Your task to perform on an android device: Open calendar and show me the first week of next month Image 0: 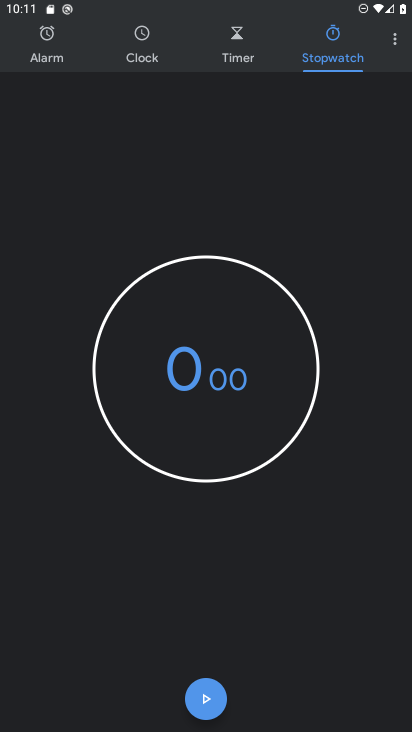
Step 0: press home button
Your task to perform on an android device: Open calendar and show me the first week of next month Image 1: 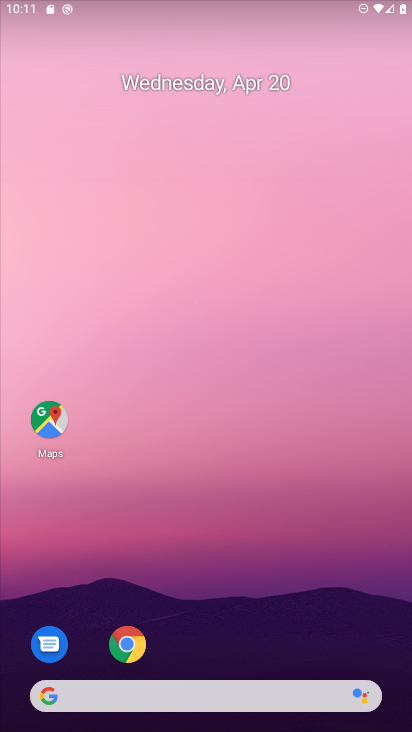
Step 1: drag from (270, 585) to (131, 94)
Your task to perform on an android device: Open calendar and show me the first week of next month Image 2: 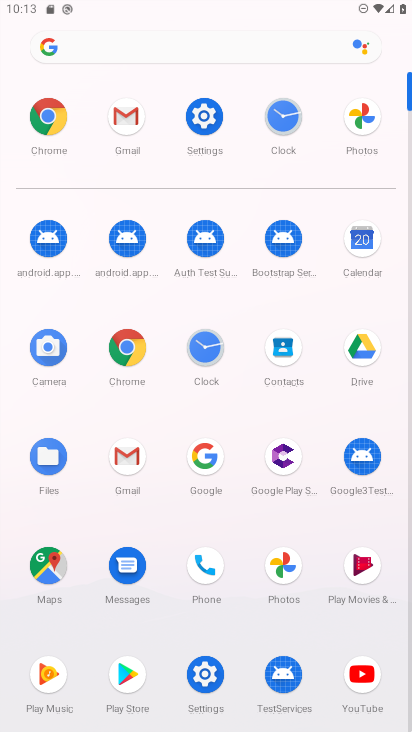
Step 2: click (367, 244)
Your task to perform on an android device: Open calendar and show me the first week of next month Image 3: 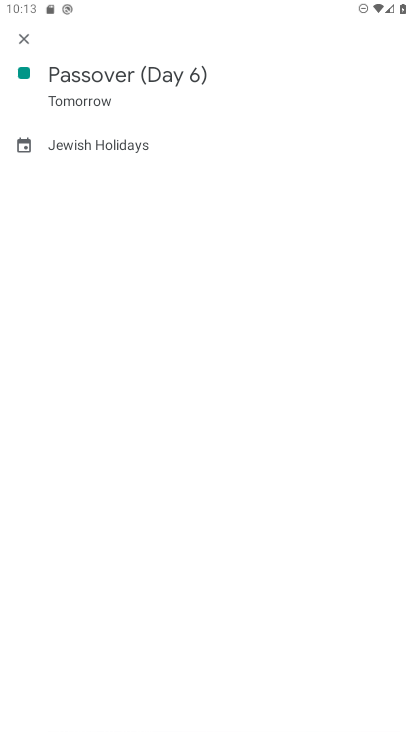
Step 3: click (27, 40)
Your task to perform on an android device: Open calendar and show me the first week of next month Image 4: 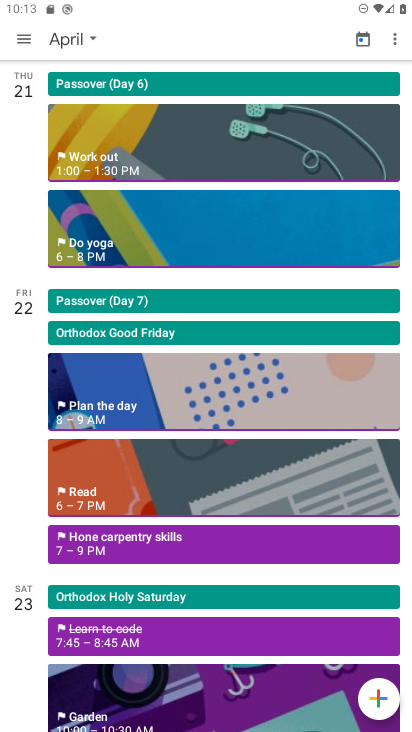
Step 4: click (54, 50)
Your task to perform on an android device: Open calendar and show me the first week of next month Image 5: 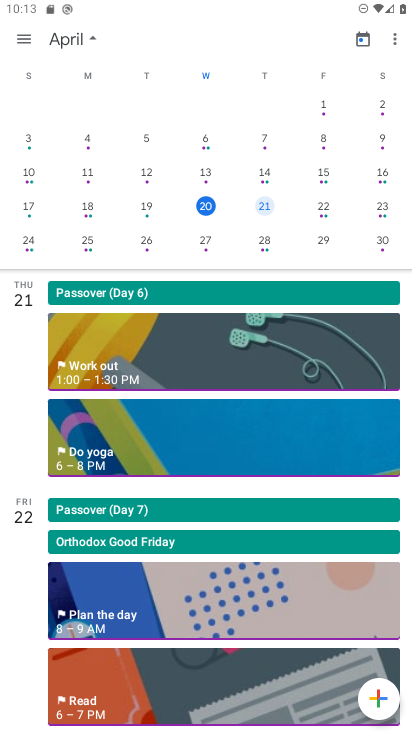
Step 5: drag from (368, 171) to (0, 131)
Your task to perform on an android device: Open calendar and show me the first week of next month Image 6: 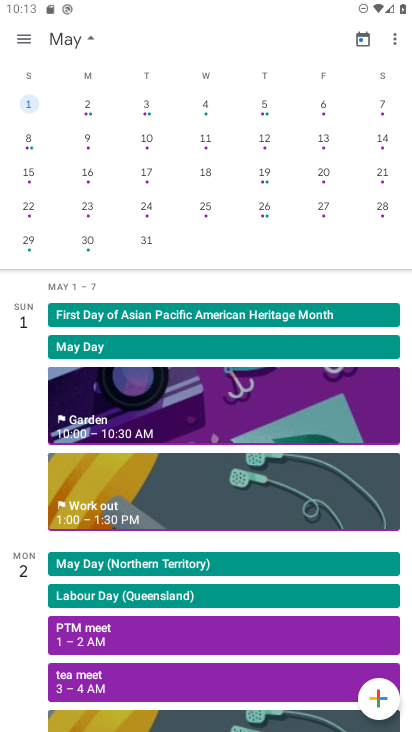
Step 6: click (153, 108)
Your task to perform on an android device: Open calendar and show me the first week of next month Image 7: 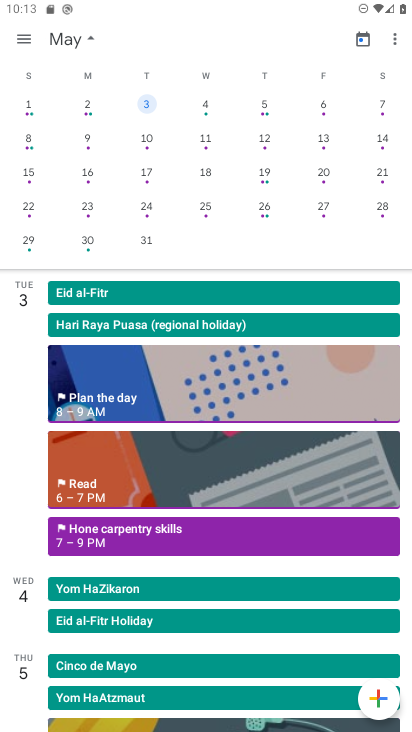
Step 7: task complete